Your task to perform on an android device: Open the phone app and click the voicemail tab. Image 0: 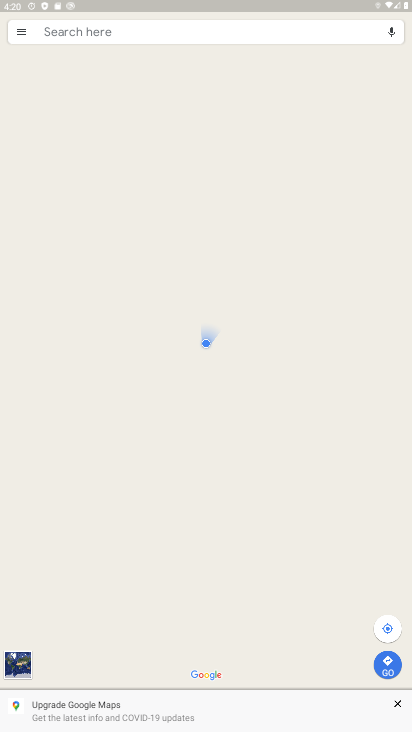
Step 0: click (199, 129)
Your task to perform on an android device: Open the phone app and click the voicemail tab. Image 1: 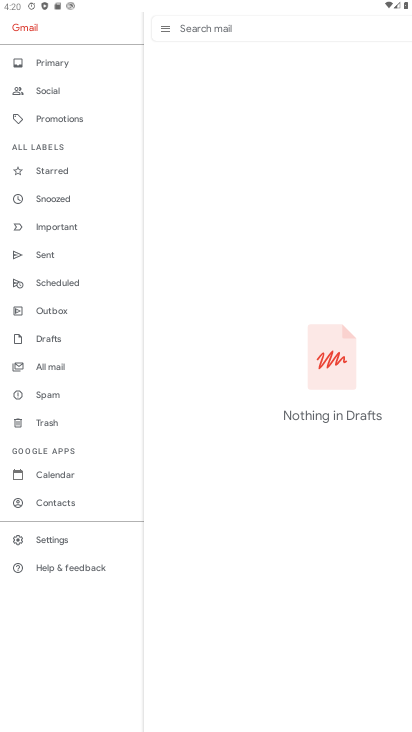
Step 1: press back button
Your task to perform on an android device: Open the phone app and click the voicemail tab. Image 2: 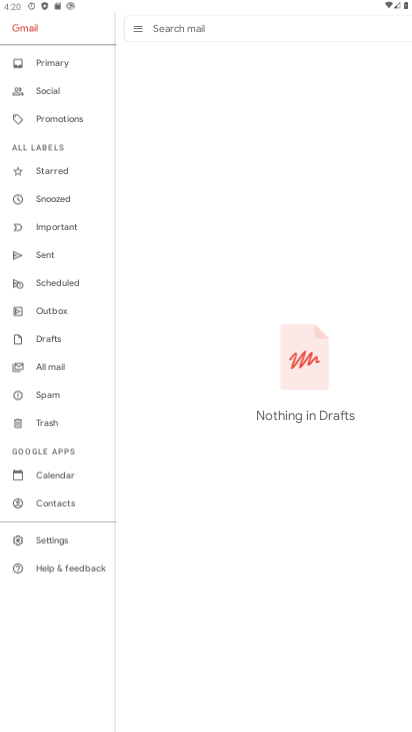
Step 2: press back button
Your task to perform on an android device: Open the phone app and click the voicemail tab. Image 3: 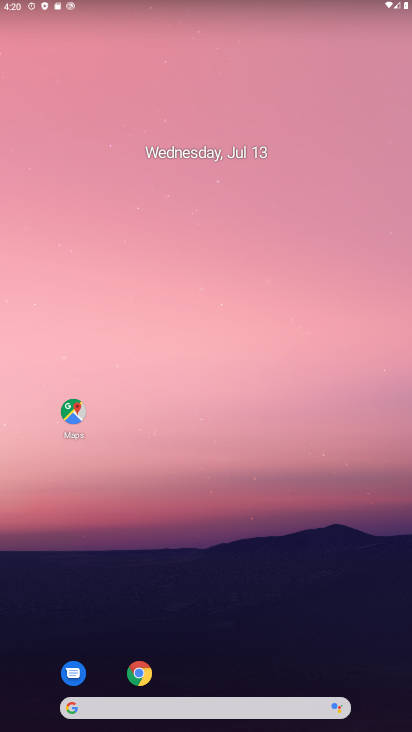
Step 3: drag from (245, 688) to (134, 38)
Your task to perform on an android device: Open the phone app and click the voicemail tab. Image 4: 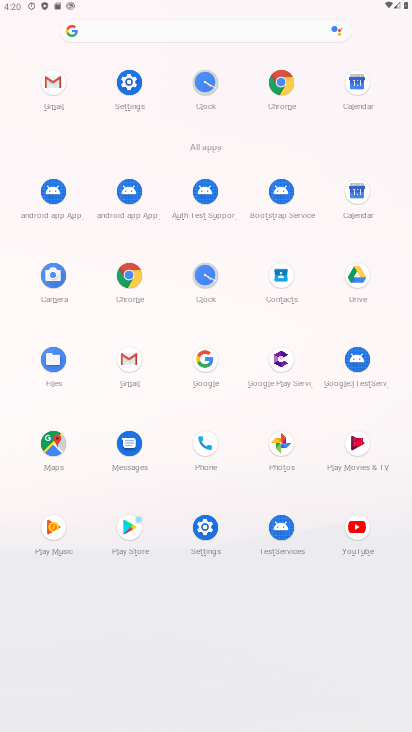
Step 4: drag from (301, 528) to (197, 56)
Your task to perform on an android device: Open the phone app and click the voicemail tab. Image 5: 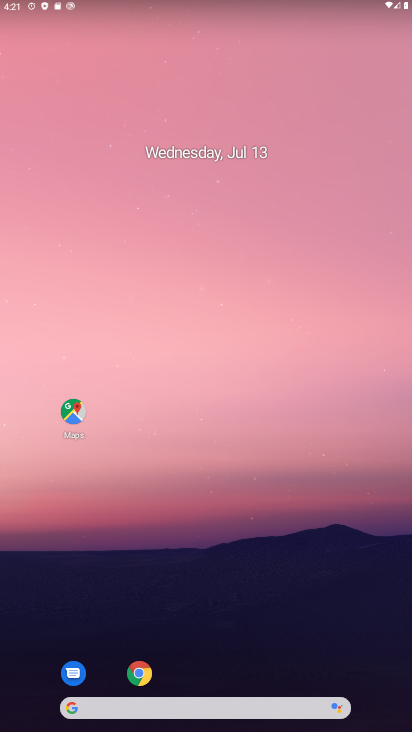
Step 5: drag from (306, 653) to (186, 221)
Your task to perform on an android device: Open the phone app and click the voicemail tab. Image 6: 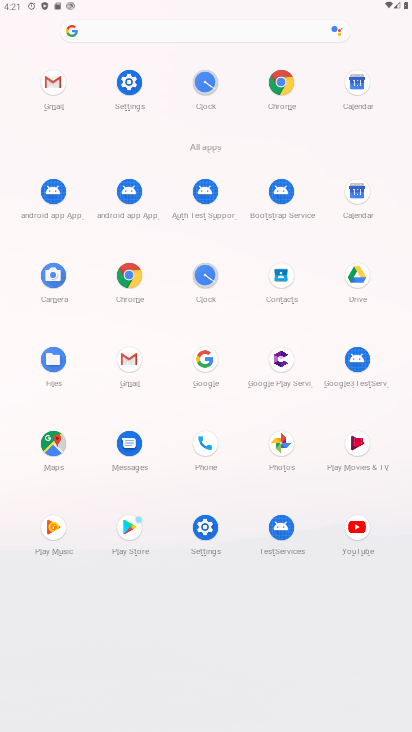
Step 6: click (203, 456)
Your task to perform on an android device: Open the phone app and click the voicemail tab. Image 7: 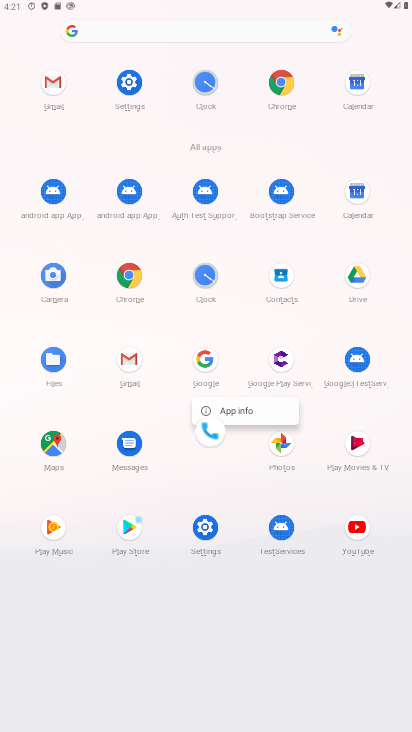
Step 7: click (209, 444)
Your task to perform on an android device: Open the phone app and click the voicemail tab. Image 8: 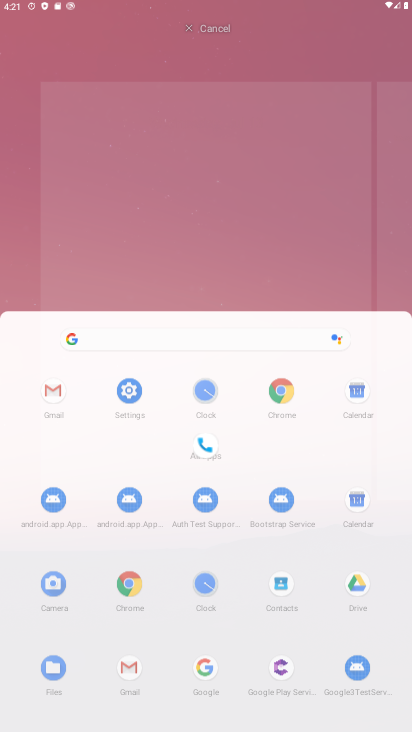
Step 8: click (209, 444)
Your task to perform on an android device: Open the phone app and click the voicemail tab. Image 9: 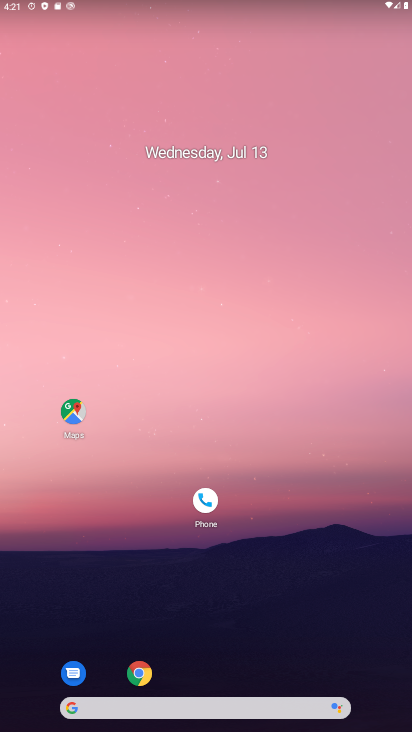
Step 9: drag from (307, 627) to (207, 112)
Your task to perform on an android device: Open the phone app and click the voicemail tab. Image 10: 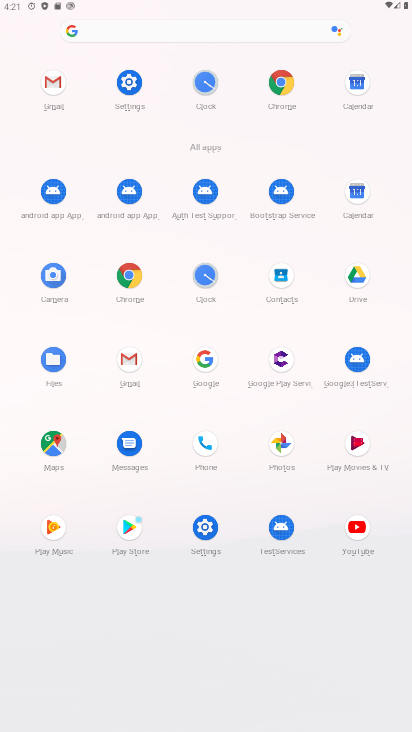
Step 10: drag from (229, 530) to (189, 209)
Your task to perform on an android device: Open the phone app and click the voicemail tab. Image 11: 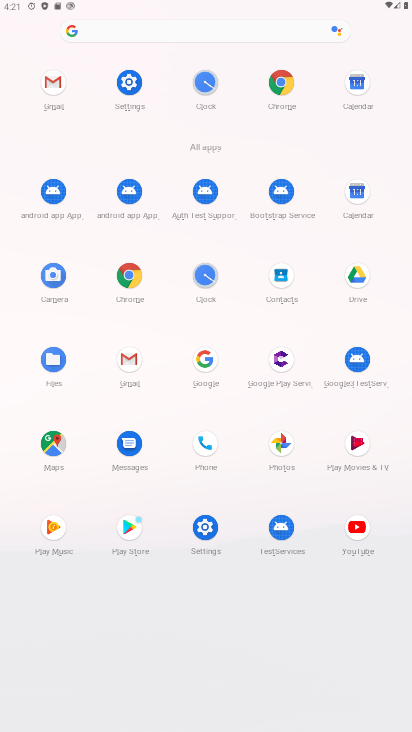
Step 11: click (197, 446)
Your task to perform on an android device: Open the phone app and click the voicemail tab. Image 12: 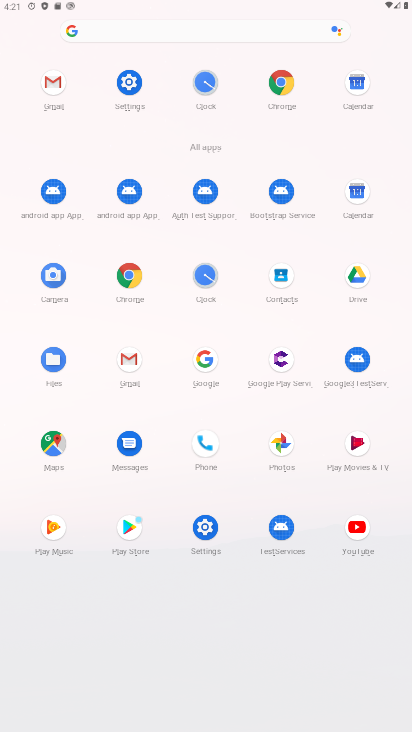
Step 12: click (198, 443)
Your task to perform on an android device: Open the phone app and click the voicemail tab. Image 13: 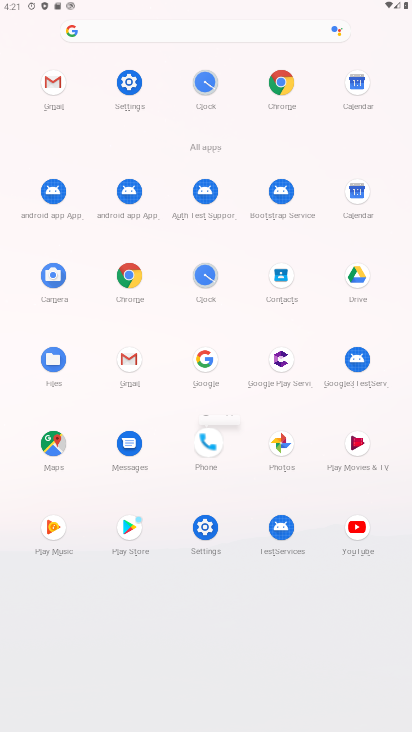
Step 13: click (202, 440)
Your task to perform on an android device: Open the phone app and click the voicemail tab. Image 14: 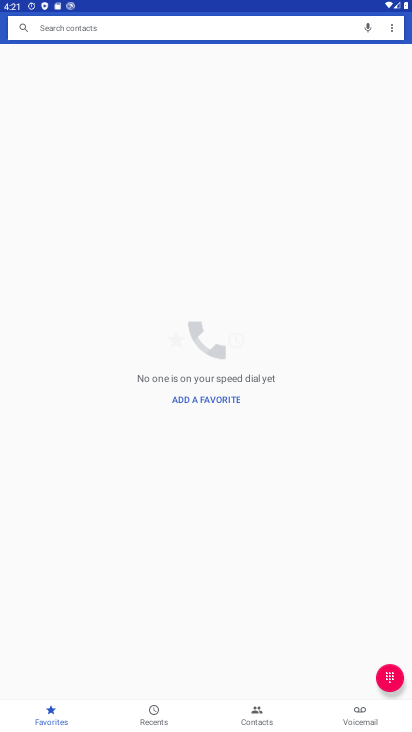
Step 14: click (203, 439)
Your task to perform on an android device: Open the phone app and click the voicemail tab. Image 15: 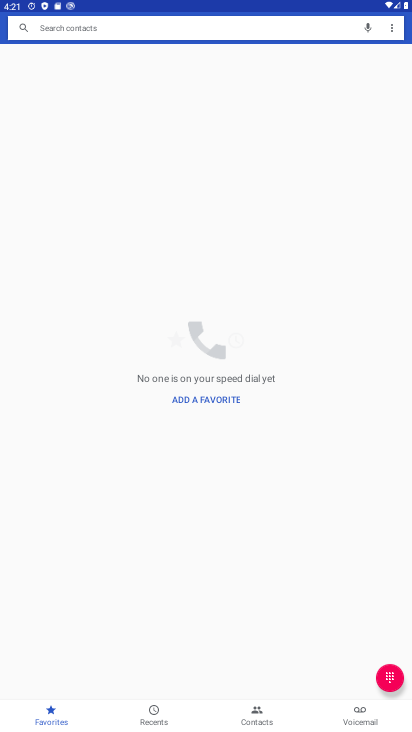
Step 15: click (359, 713)
Your task to perform on an android device: Open the phone app and click the voicemail tab. Image 16: 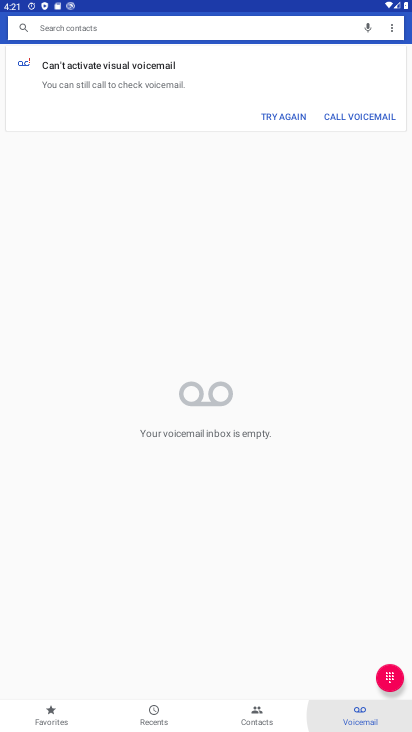
Step 16: click (361, 708)
Your task to perform on an android device: Open the phone app and click the voicemail tab. Image 17: 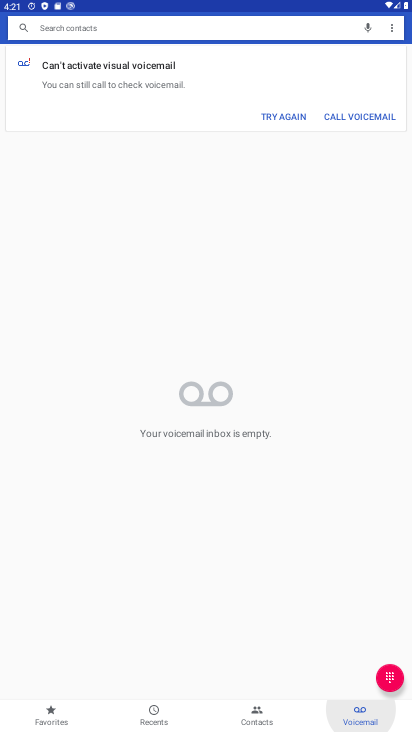
Step 17: click (363, 702)
Your task to perform on an android device: Open the phone app and click the voicemail tab. Image 18: 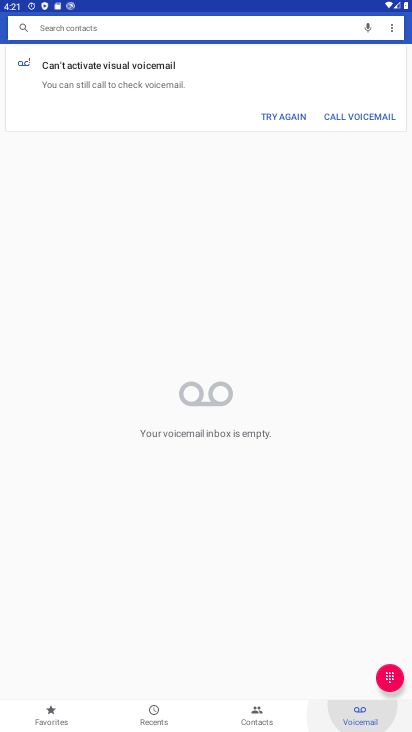
Step 18: click (361, 708)
Your task to perform on an android device: Open the phone app and click the voicemail tab. Image 19: 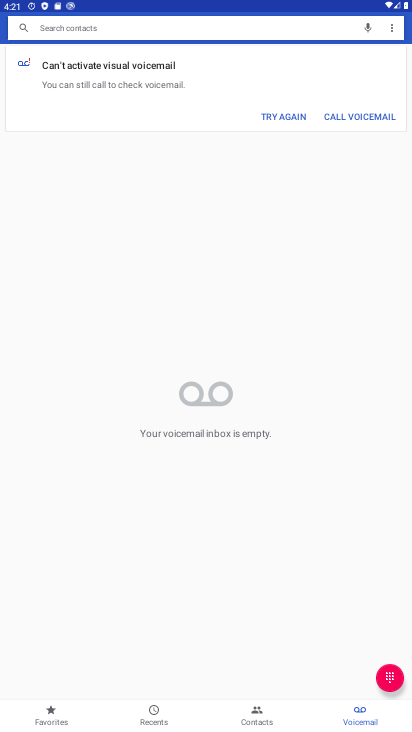
Step 19: task complete